Your task to perform on an android device: choose inbox layout in the gmail app Image 0: 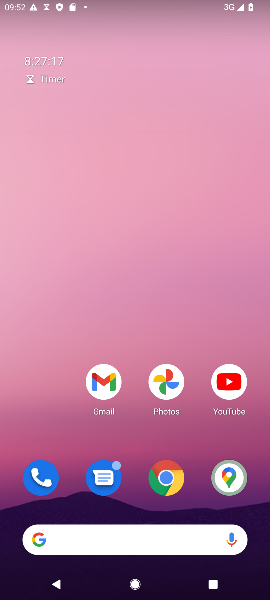
Step 0: drag from (184, 325) to (167, 46)
Your task to perform on an android device: choose inbox layout in the gmail app Image 1: 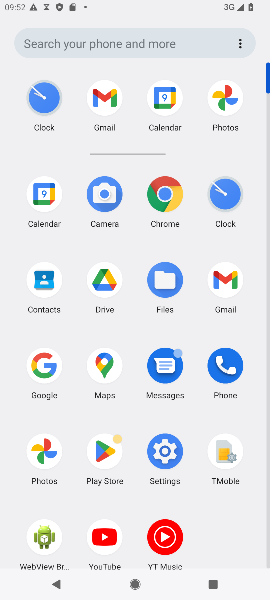
Step 1: click (105, 105)
Your task to perform on an android device: choose inbox layout in the gmail app Image 2: 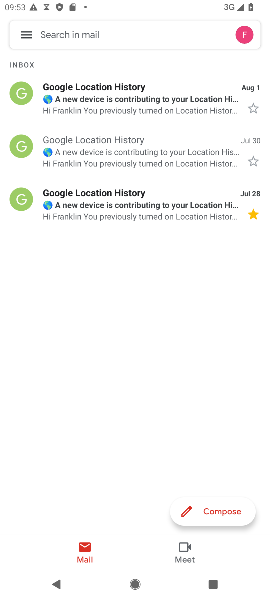
Step 2: click (25, 32)
Your task to perform on an android device: choose inbox layout in the gmail app Image 3: 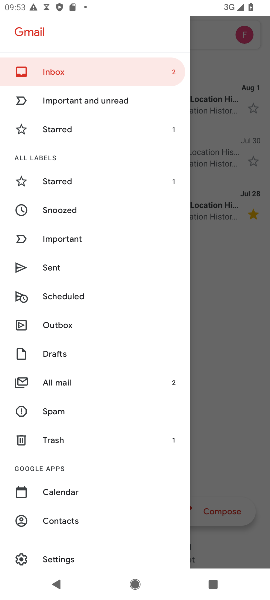
Step 3: click (55, 557)
Your task to perform on an android device: choose inbox layout in the gmail app Image 4: 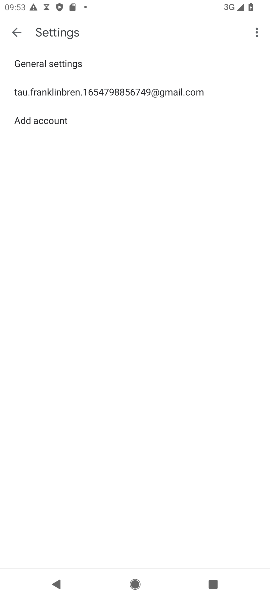
Step 4: click (106, 97)
Your task to perform on an android device: choose inbox layout in the gmail app Image 5: 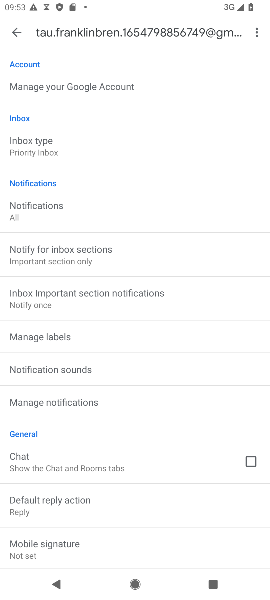
Step 5: click (106, 97)
Your task to perform on an android device: choose inbox layout in the gmail app Image 6: 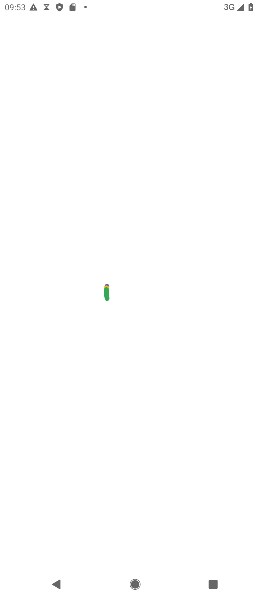
Step 6: press back button
Your task to perform on an android device: choose inbox layout in the gmail app Image 7: 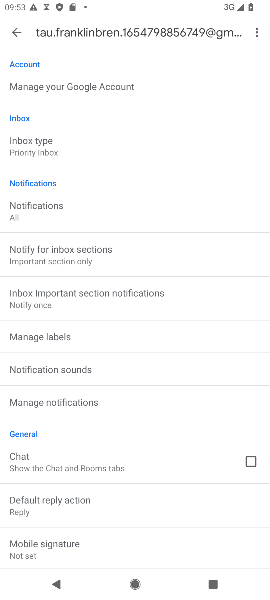
Step 7: click (85, 150)
Your task to perform on an android device: choose inbox layout in the gmail app Image 8: 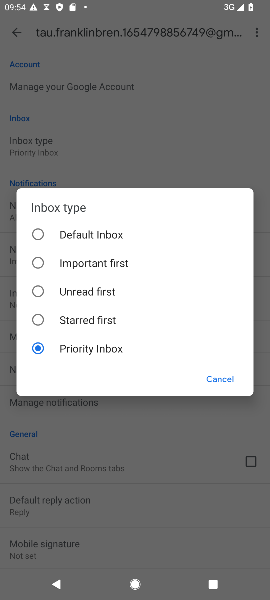
Step 8: click (86, 271)
Your task to perform on an android device: choose inbox layout in the gmail app Image 9: 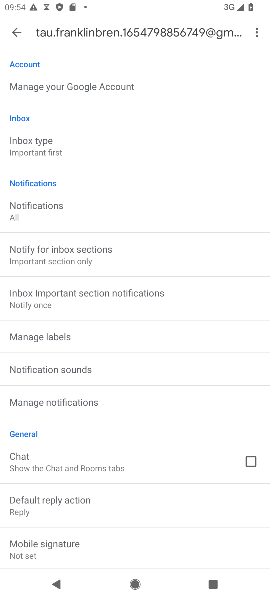
Step 9: task complete